Your task to perform on an android device: When is my next meeting? Image 0: 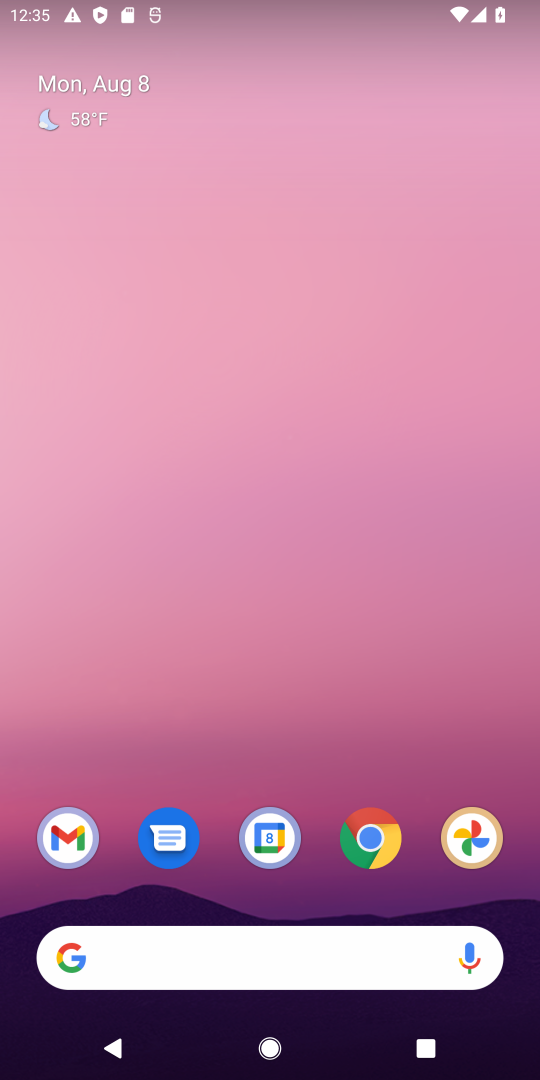
Step 0: press home button
Your task to perform on an android device: When is my next meeting? Image 1: 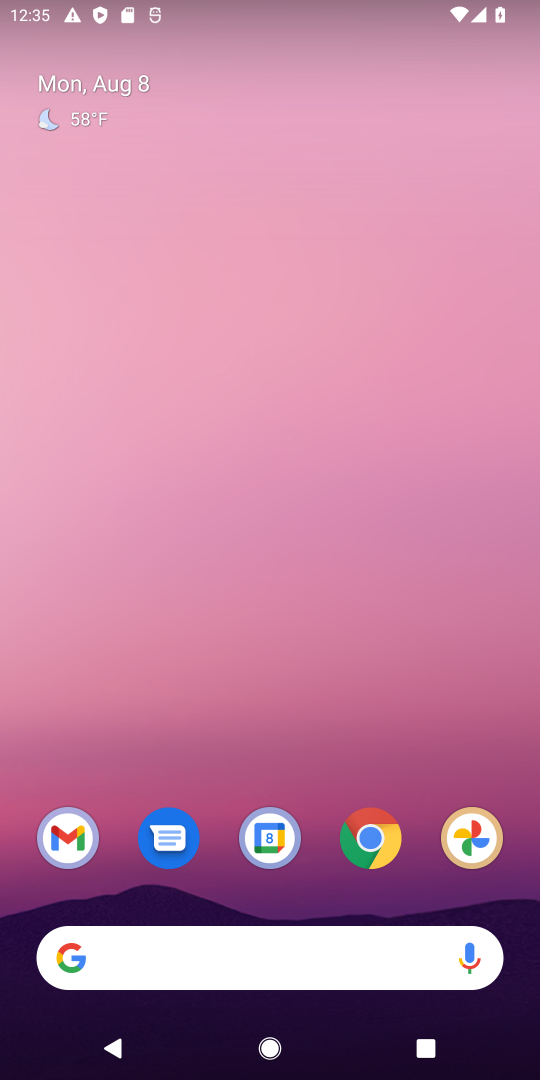
Step 1: click (275, 835)
Your task to perform on an android device: When is my next meeting? Image 2: 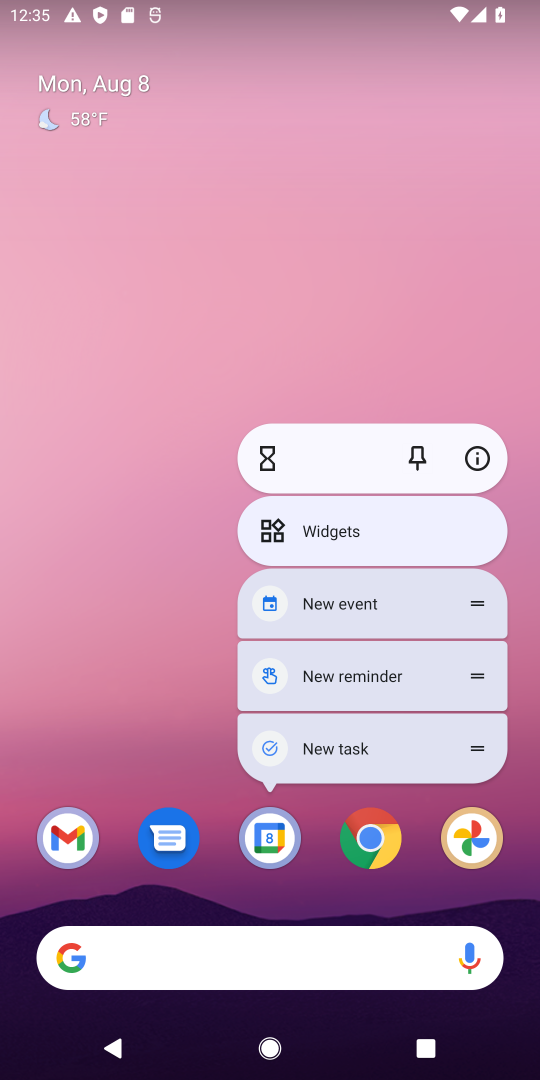
Step 2: click (275, 835)
Your task to perform on an android device: When is my next meeting? Image 3: 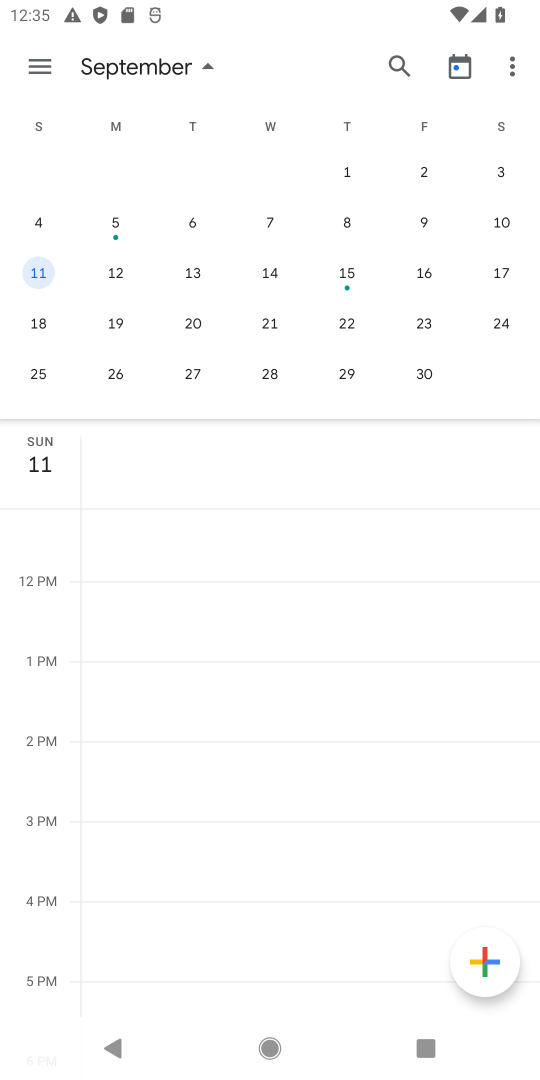
Step 3: click (40, 71)
Your task to perform on an android device: When is my next meeting? Image 4: 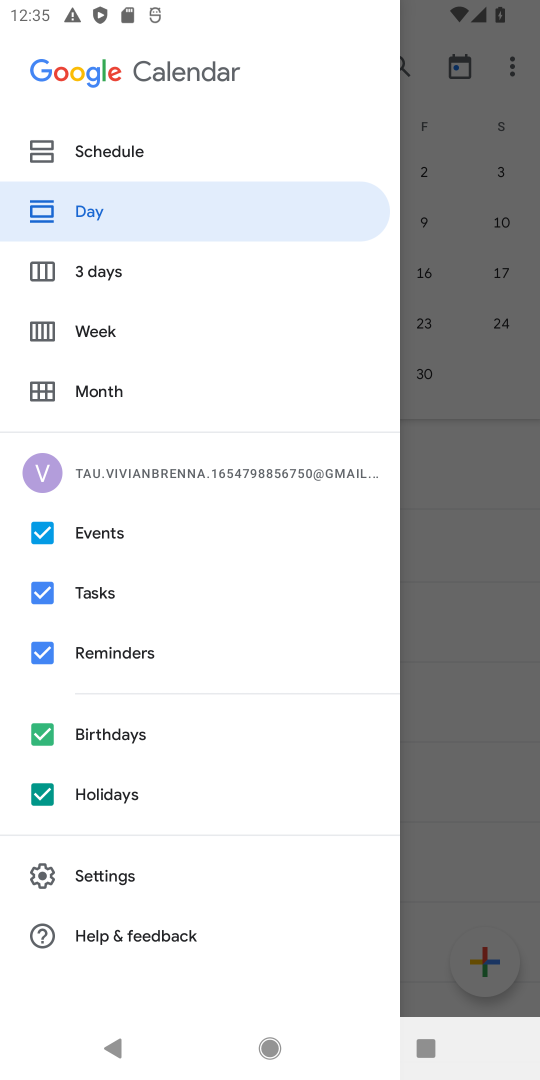
Step 4: click (108, 154)
Your task to perform on an android device: When is my next meeting? Image 5: 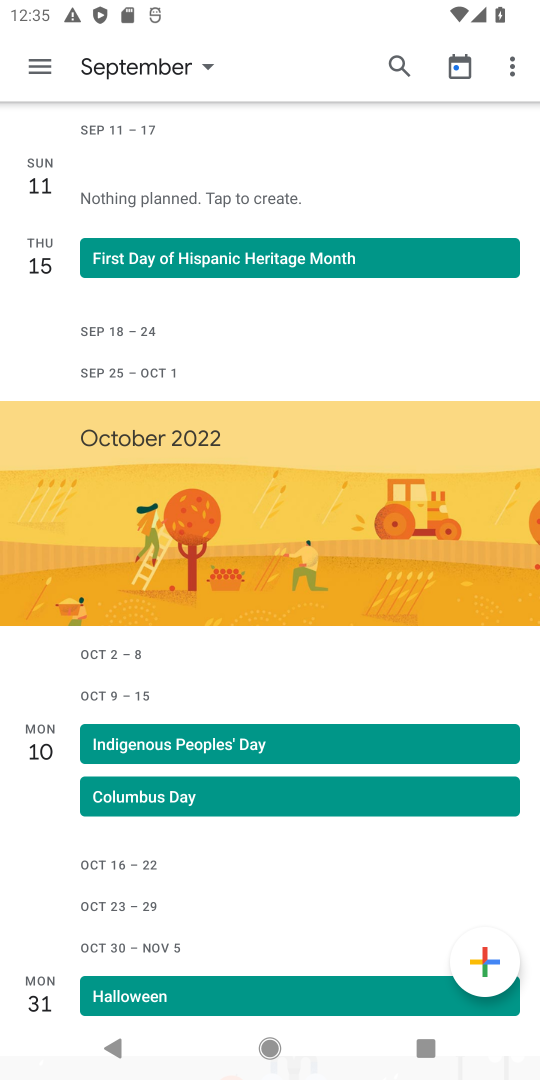
Step 5: task complete